Your task to perform on an android device: turn on the 24-hour format for clock Image 0: 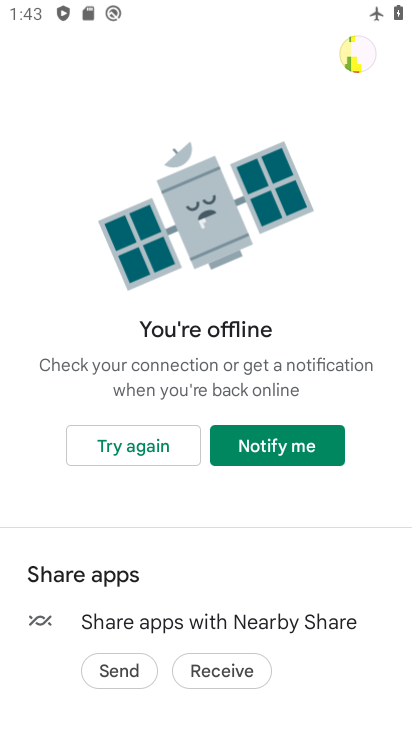
Step 0: press home button
Your task to perform on an android device: turn on the 24-hour format for clock Image 1: 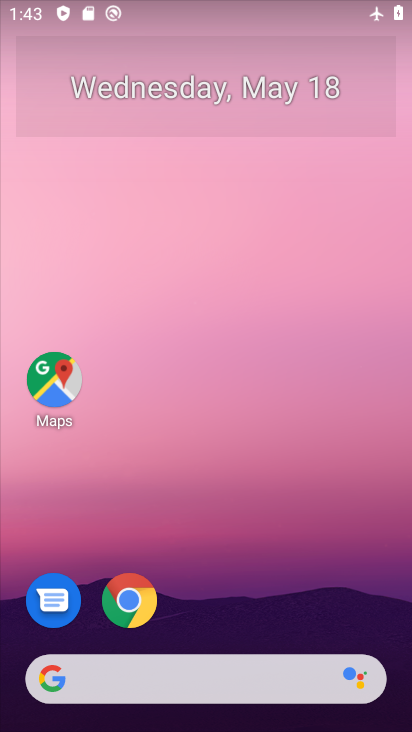
Step 1: drag from (256, 651) to (265, 151)
Your task to perform on an android device: turn on the 24-hour format for clock Image 2: 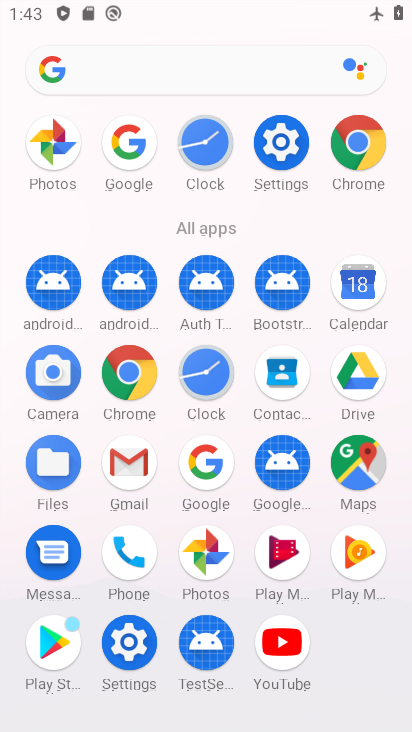
Step 2: click (213, 125)
Your task to perform on an android device: turn on the 24-hour format for clock Image 3: 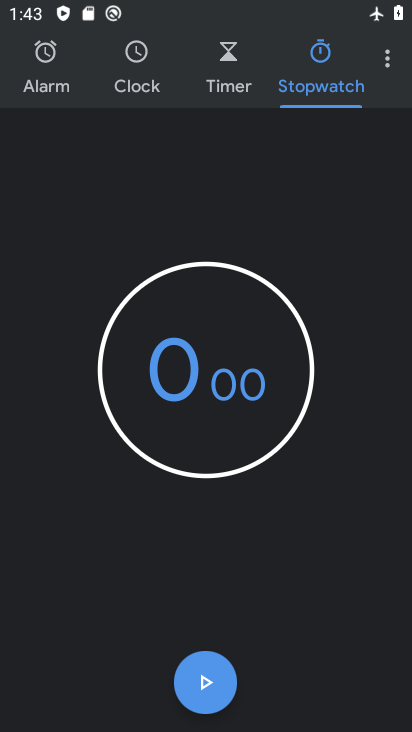
Step 3: click (383, 64)
Your task to perform on an android device: turn on the 24-hour format for clock Image 4: 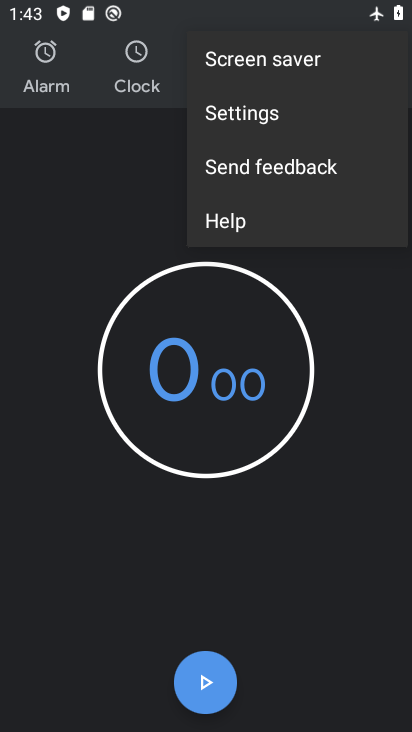
Step 4: click (238, 120)
Your task to perform on an android device: turn on the 24-hour format for clock Image 5: 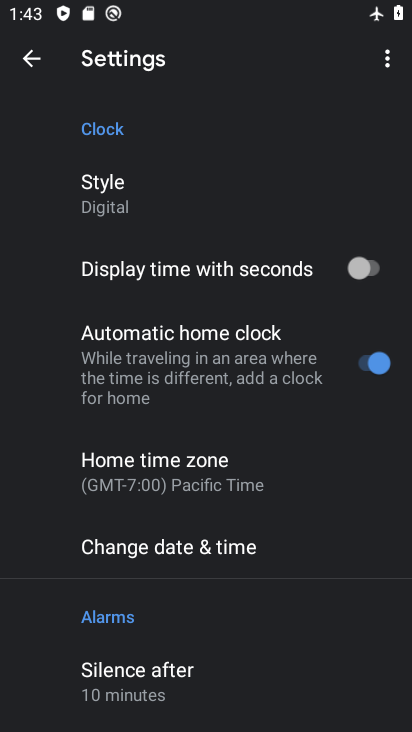
Step 5: click (145, 556)
Your task to perform on an android device: turn on the 24-hour format for clock Image 6: 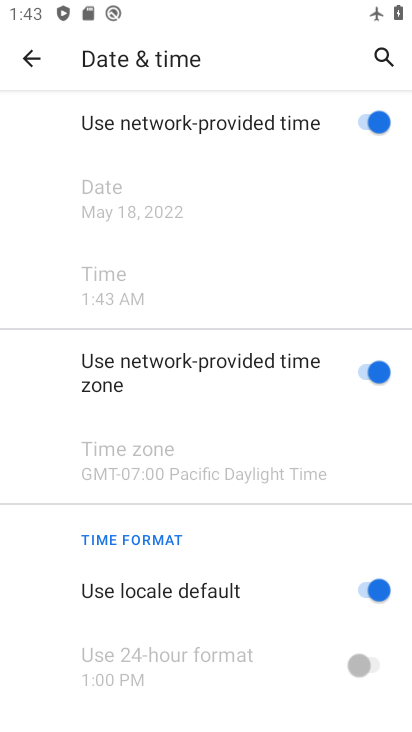
Step 6: drag from (244, 684) to (241, 225)
Your task to perform on an android device: turn on the 24-hour format for clock Image 7: 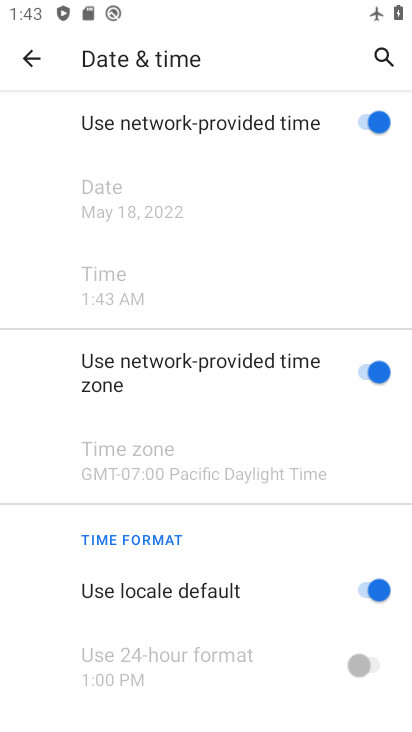
Step 7: click (358, 588)
Your task to perform on an android device: turn on the 24-hour format for clock Image 8: 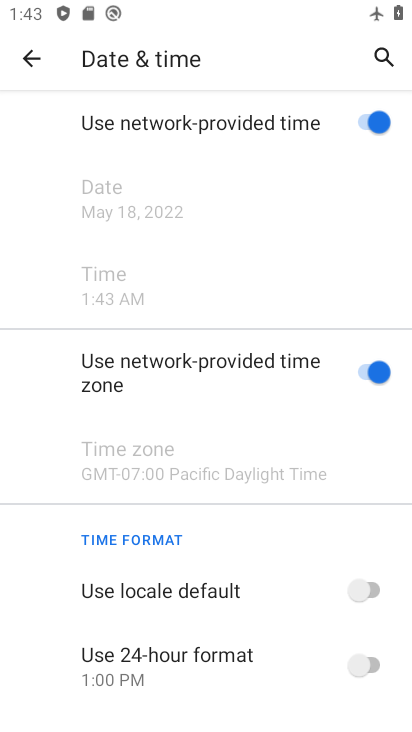
Step 8: click (375, 661)
Your task to perform on an android device: turn on the 24-hour format for clock Image 9: 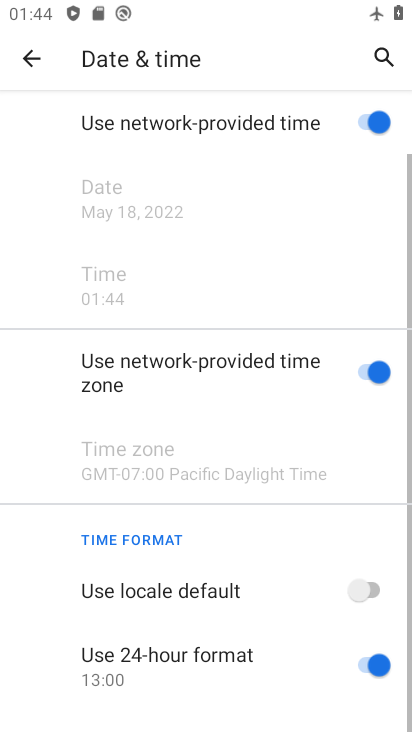
Step 9: task complete